Your task to perform on an android device: Open settings Image 0: 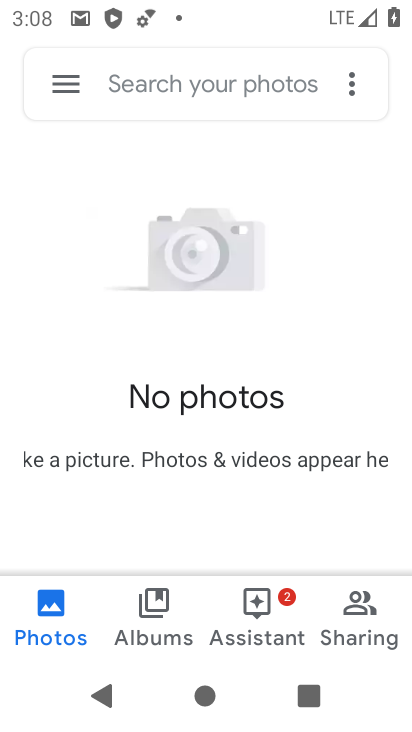
Step 0: press home button
Your task to perform on an android device: Open settings Image 1: 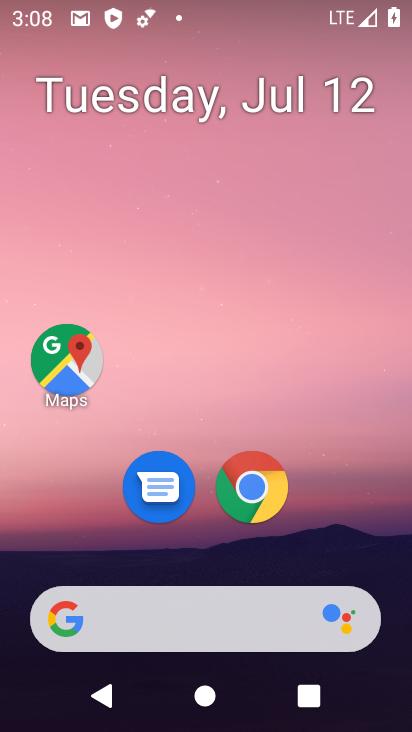
Step 1: drag from (85, 640) to (216, 60)
Your task to perform on an android device: Open settings Image 2: 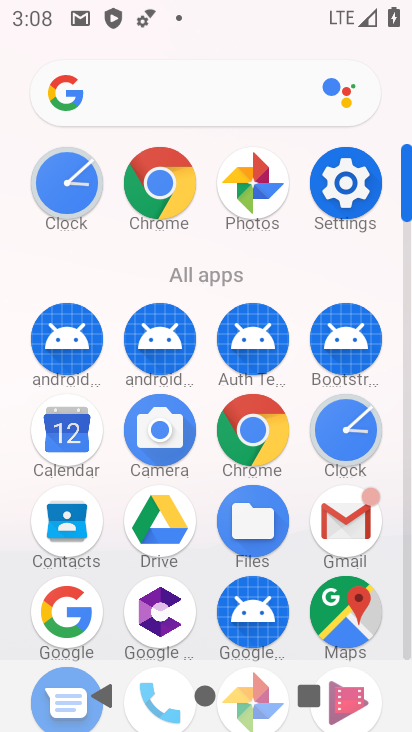
Step 2: click (350, 194)
Your task to perform on an android device: Open settings Image 3: 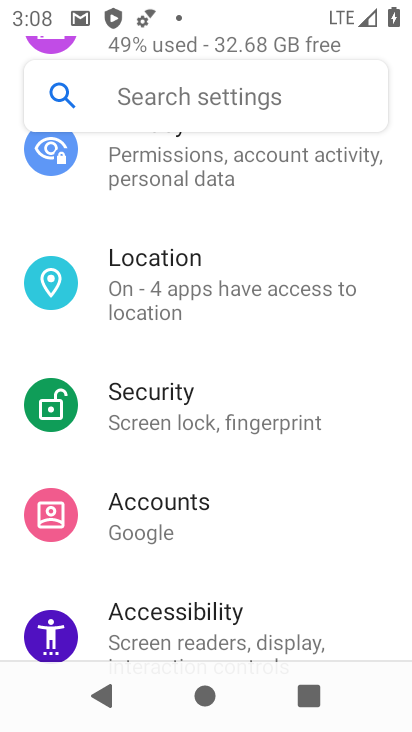
Step 3: task complete